Your task to perform on an android device: Open my contact list Image 0: 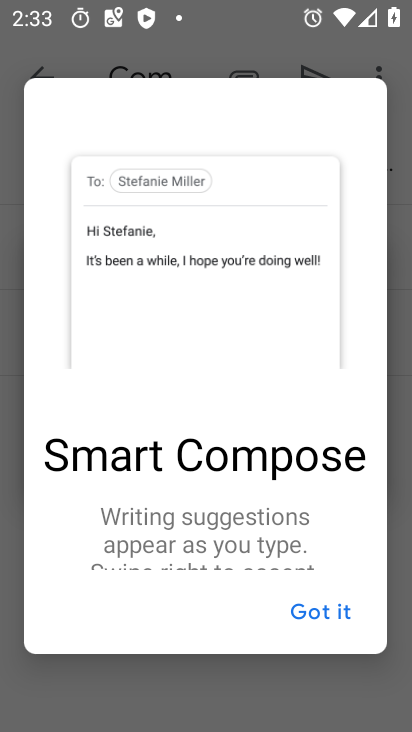
Step 0: press back button
Your task to perform on an android device: Open my contact list Image 1: 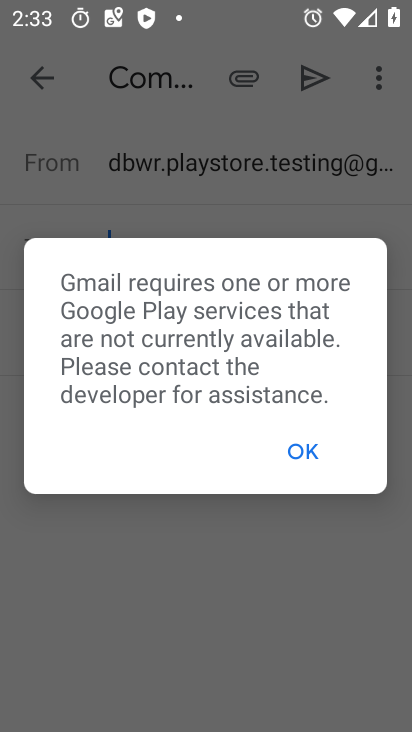
Step 1: press home button
Your task to perform on an android device: Open my contact list Image 2: 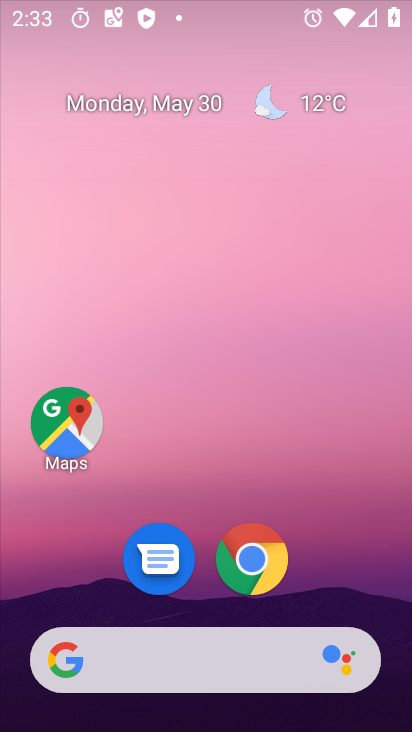
Step 2: drag from (242, 160) to (305, 1)
Your task to perform on an android device: Open my contact list Image 3: 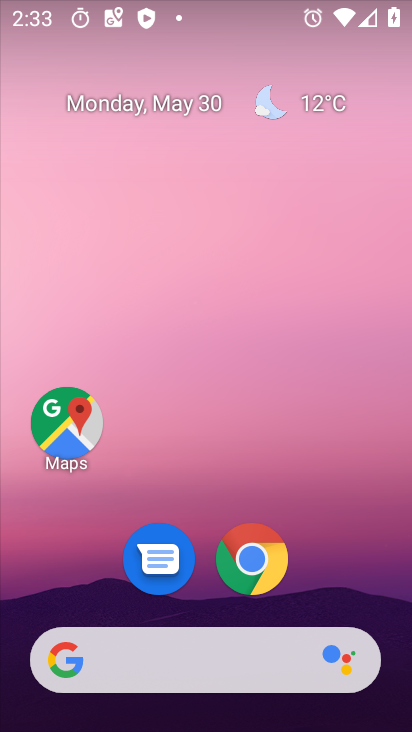
Step 3: drag from (216, 501) to (298, 27)
Your task to perform on an android device: Open my contact list Image 4: 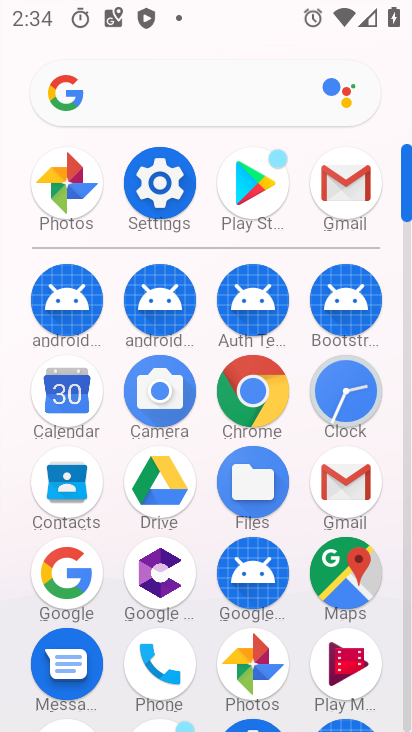
Step 4: click (57, 494)
Your task to perform on an android device: Open my contact list Image 5: 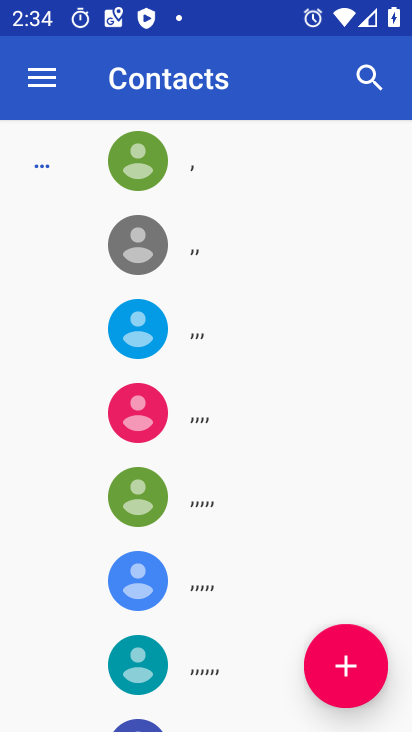
Step 5: task complete